Your task to perform on an android device: Open Chrome and go to settings Image 0: 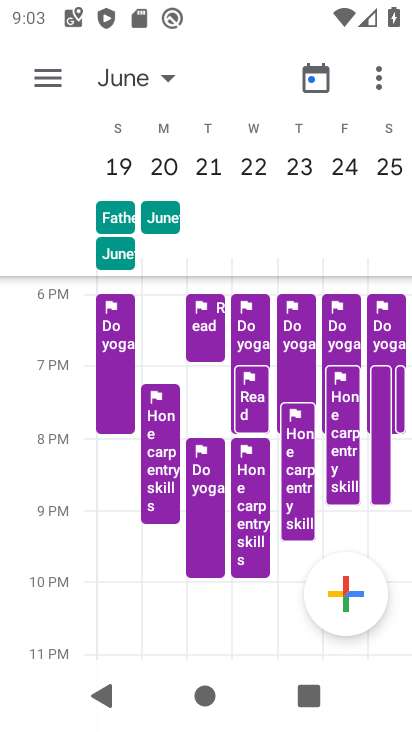
Step 0: press home button
Your task to perform on an android device: Open Chrome and go to settings Image 1: 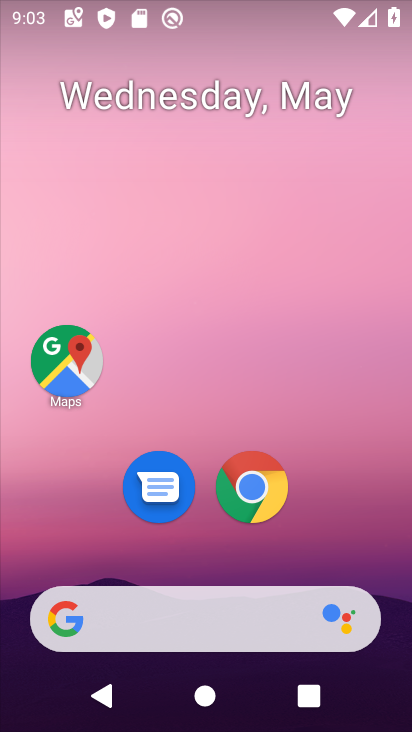
Step 1: click (246, 488)
Your task to perform on an android device: Open Chrome and go to settings Image 2: 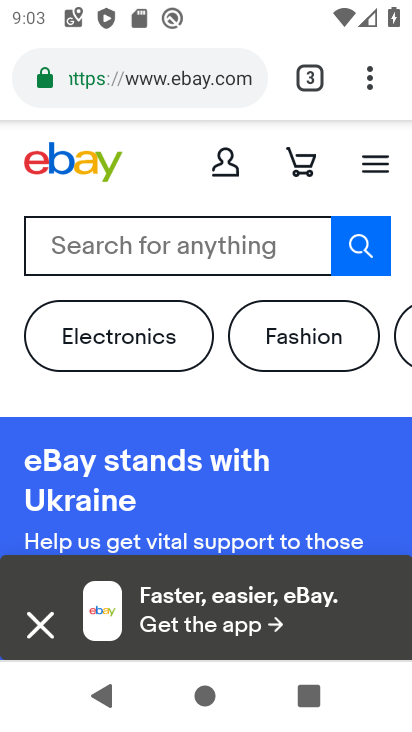
Step 2: click (375, 77)
Your task to perform on an android device: Open Chrome and go to settings Image 3: 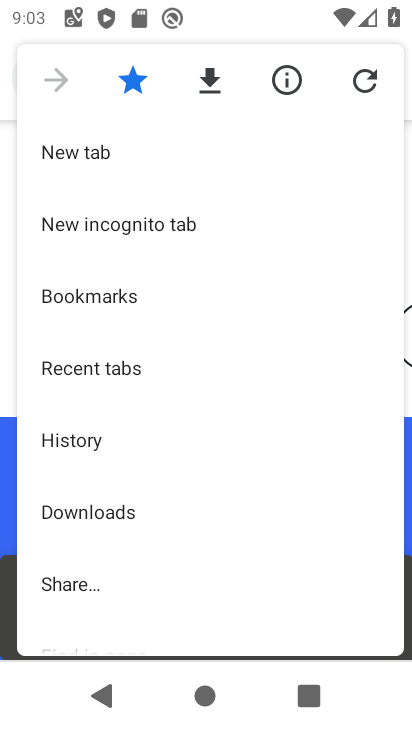
Step 3: drag from (188, 455) to (154, 152)
Your task to perform on an android device: Open Chrome and go to settings Image 4: 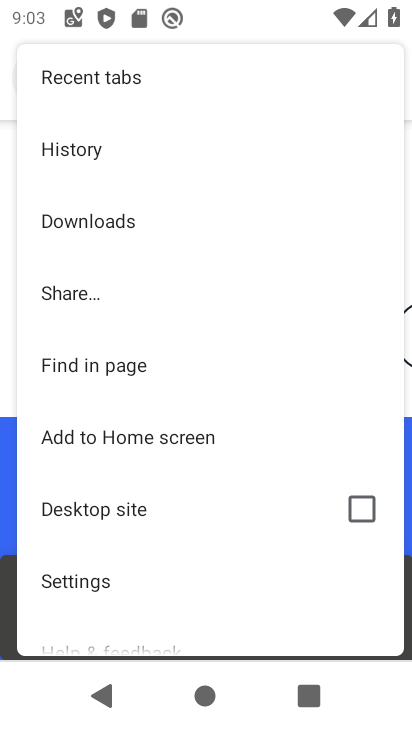
Step 4: click (83, 579)
Your task to perform on an android device: Open Chrome and go to settings Image 5: 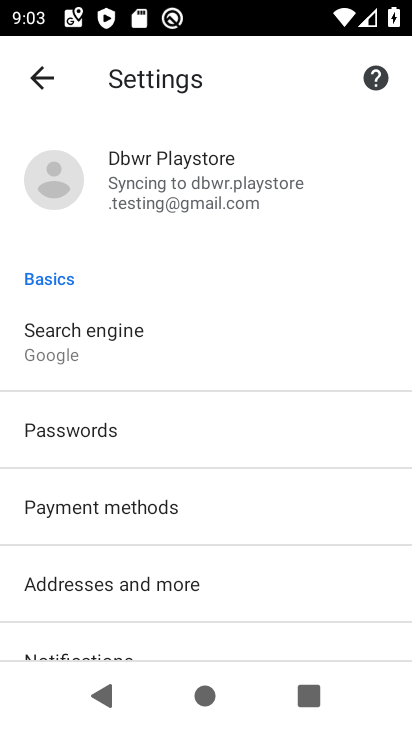
Step 5: task complete